Your task to perform on an android device: toggle sleep mode Image 0: 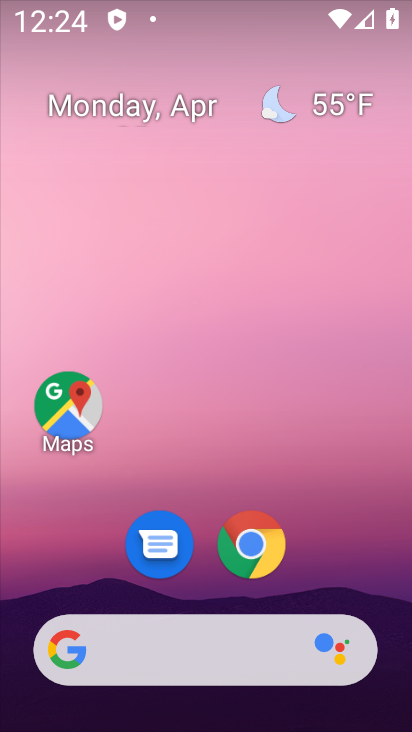
Step 0: drag from (327, 500) to (290, 82)
Your task to perform on an android device: toggle sleep mode Image 1: 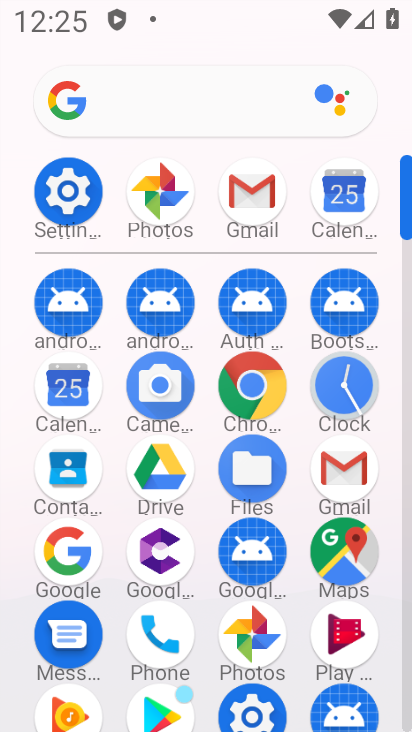
Step 1: click (82, 208)
Your task to perform on an android device: toggle sleep mode Image 2: 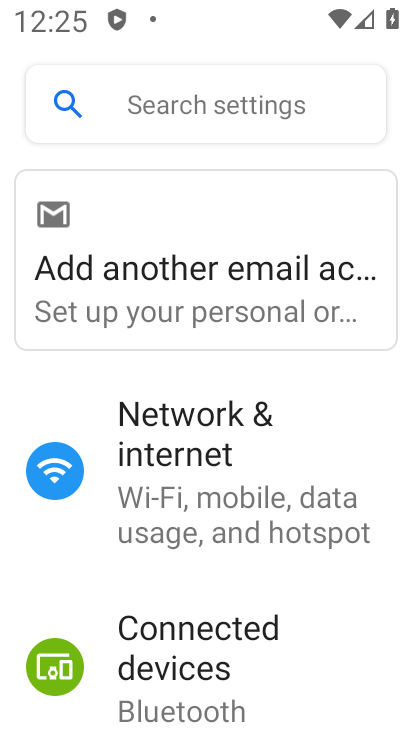
Step 2: drag from (215, 658) to (178, 184)
Your task to perform on an android device: toggle sleep mode Image 3: 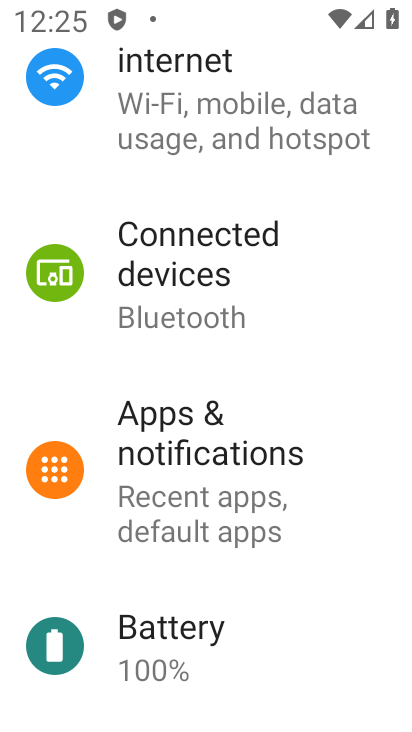
Step 3: drag from (188, 678) to (189, 264)
Your task to perform on an android device: toggle sleep mode Image 4: 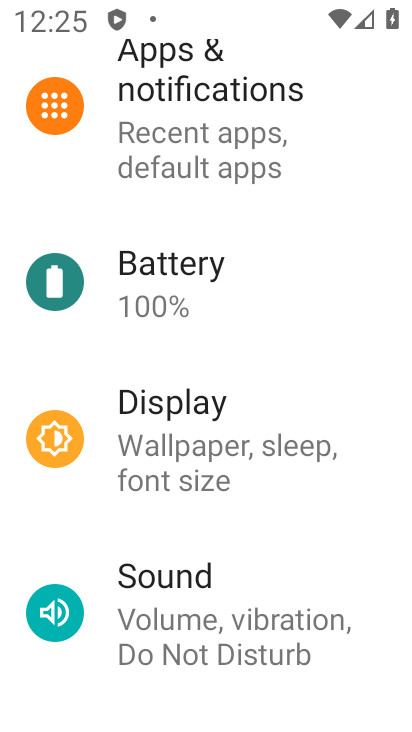
Step 4: click (157, 435)
Your task to perform on an android device: toggle sleep mode Image 5: 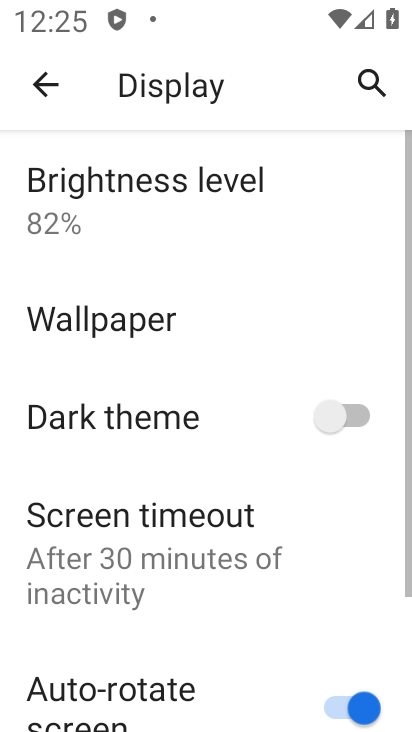
Step 5: drag from (134, 640) to (136, 226)
Your task to perform on an android device: toggle sleep mode Image 6: 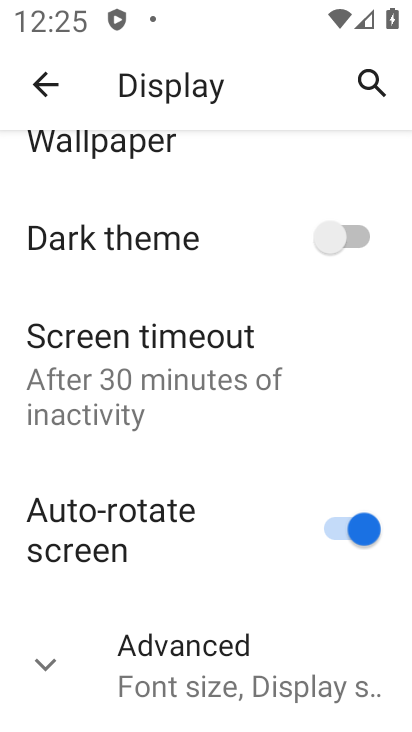
Step 6: click (178, 687)
Your task to perform on an android device: toggle sleep mode Image 7: 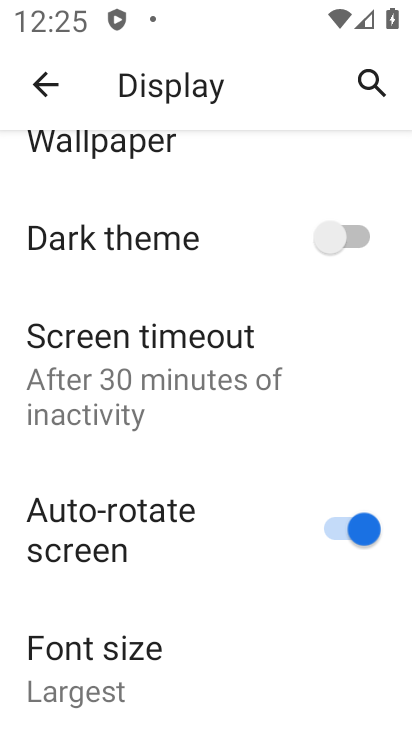
Step 7: task complete